Your task to perform on an android device: open app "Microsoft Outlook" (install if not already installed) Image 0: 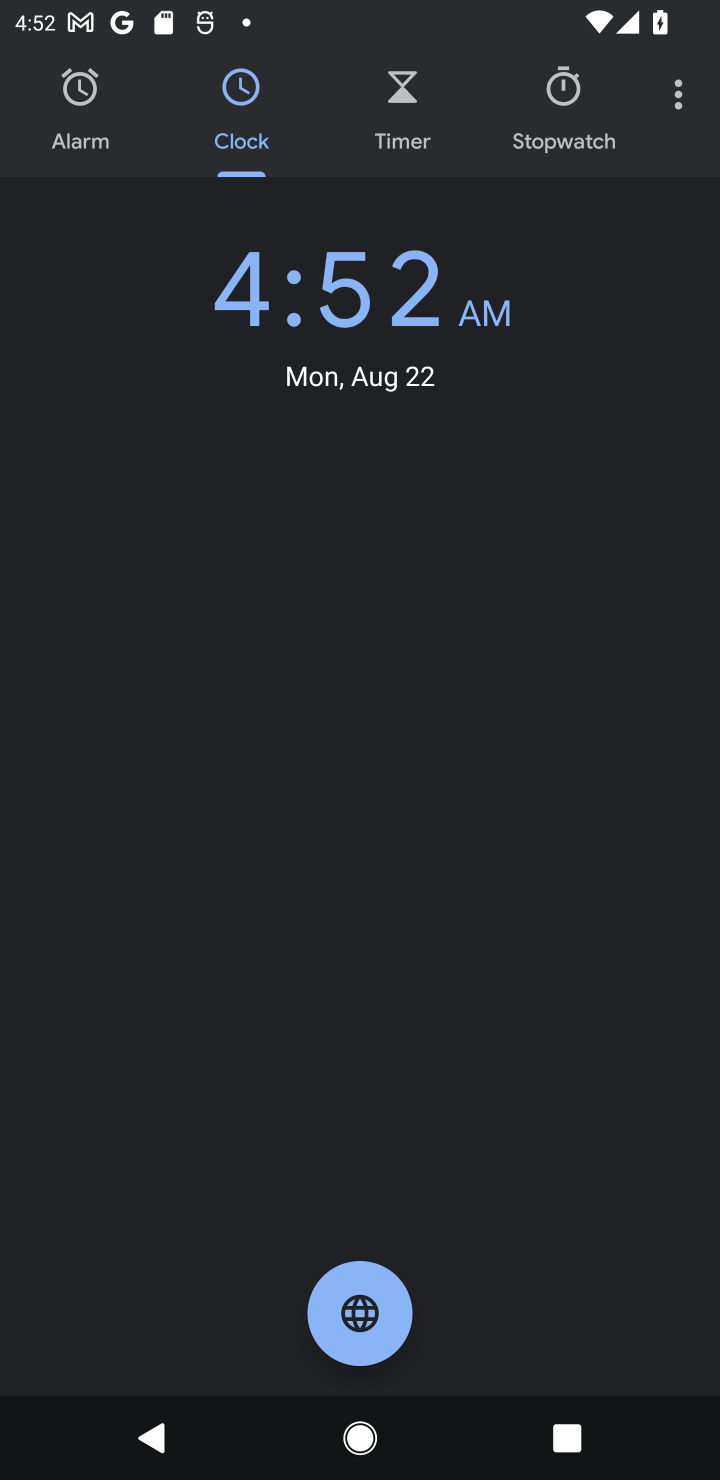
Step 0: press home button
Your task to perform on an android device: open app "Microsoft Outlook" (install if not already installed) Image 1: 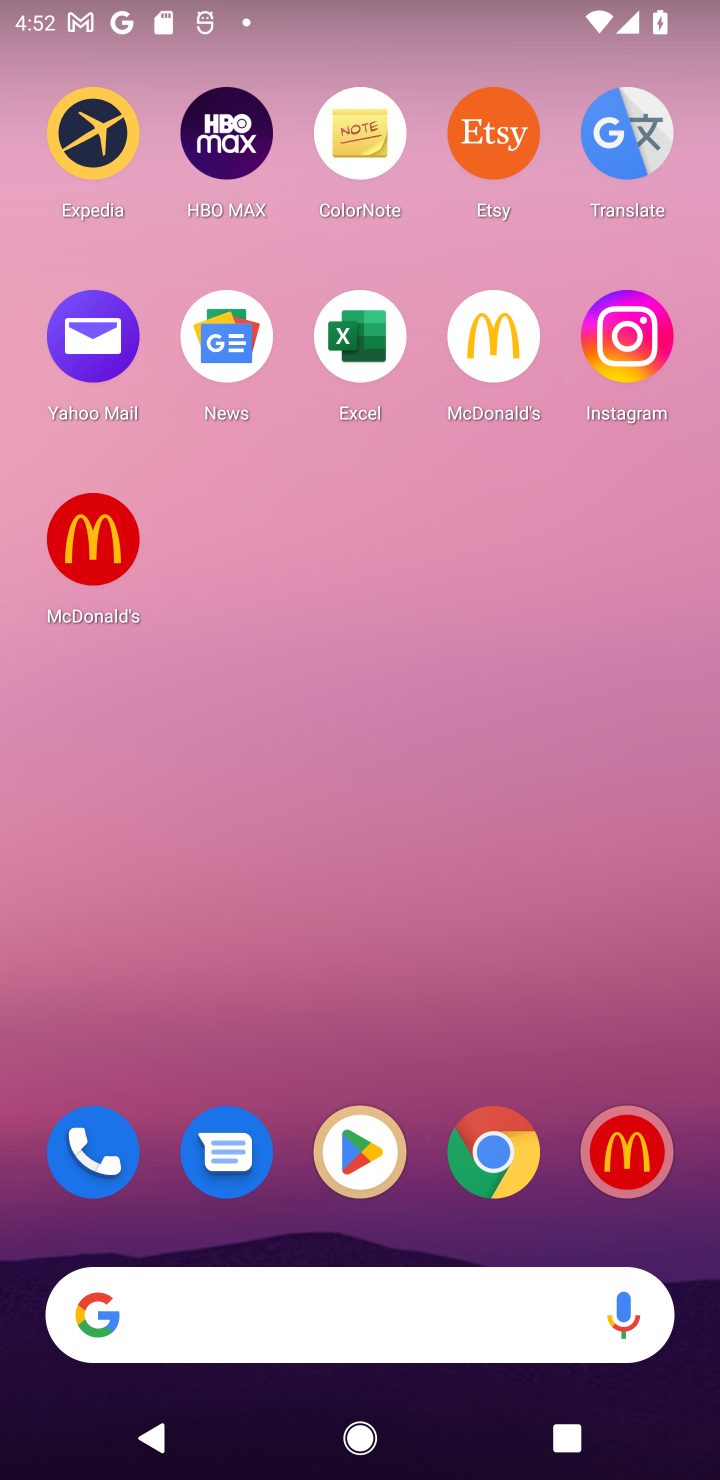
Step 1: click (327, 1147)
Your task to perform on an android device: open app "Microsoft Outlook" (install if not already installed) Image 2: 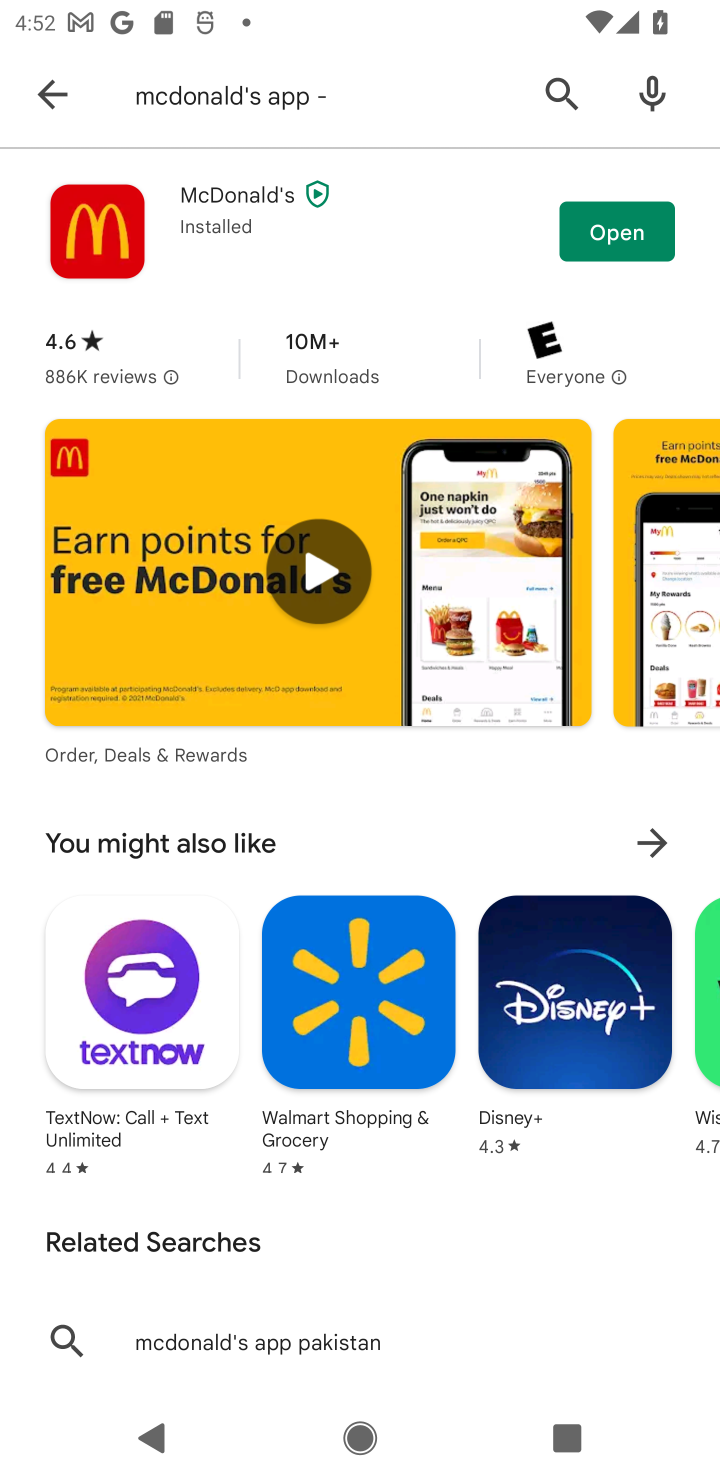
Step 2: click (44, 81)
Your task to perform on an android device: open app "Microsoft Outlook" (install if not already installed) Image 3: 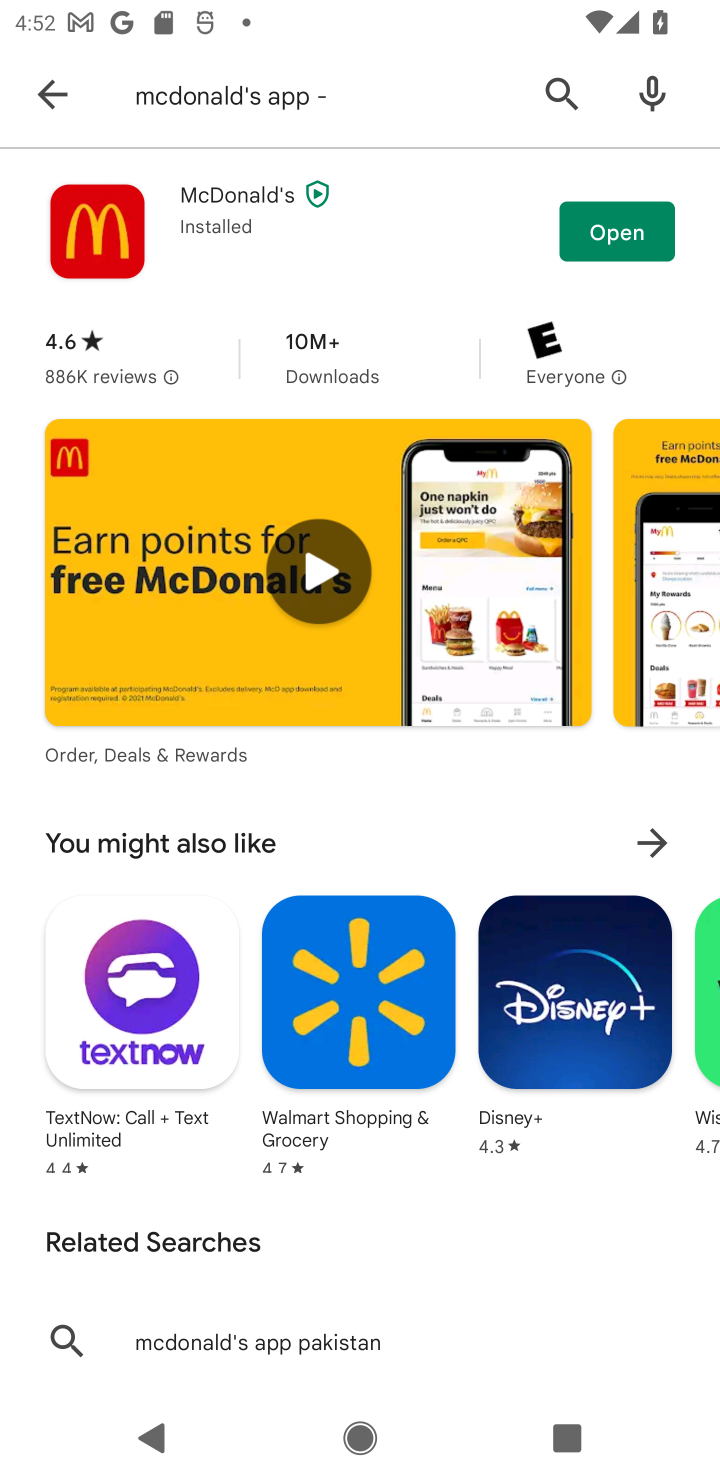
Step 3: click (43, 82)
Your task to perform on an android device: open app "Microsoft Outlook" (install if not already installed) Image 4: 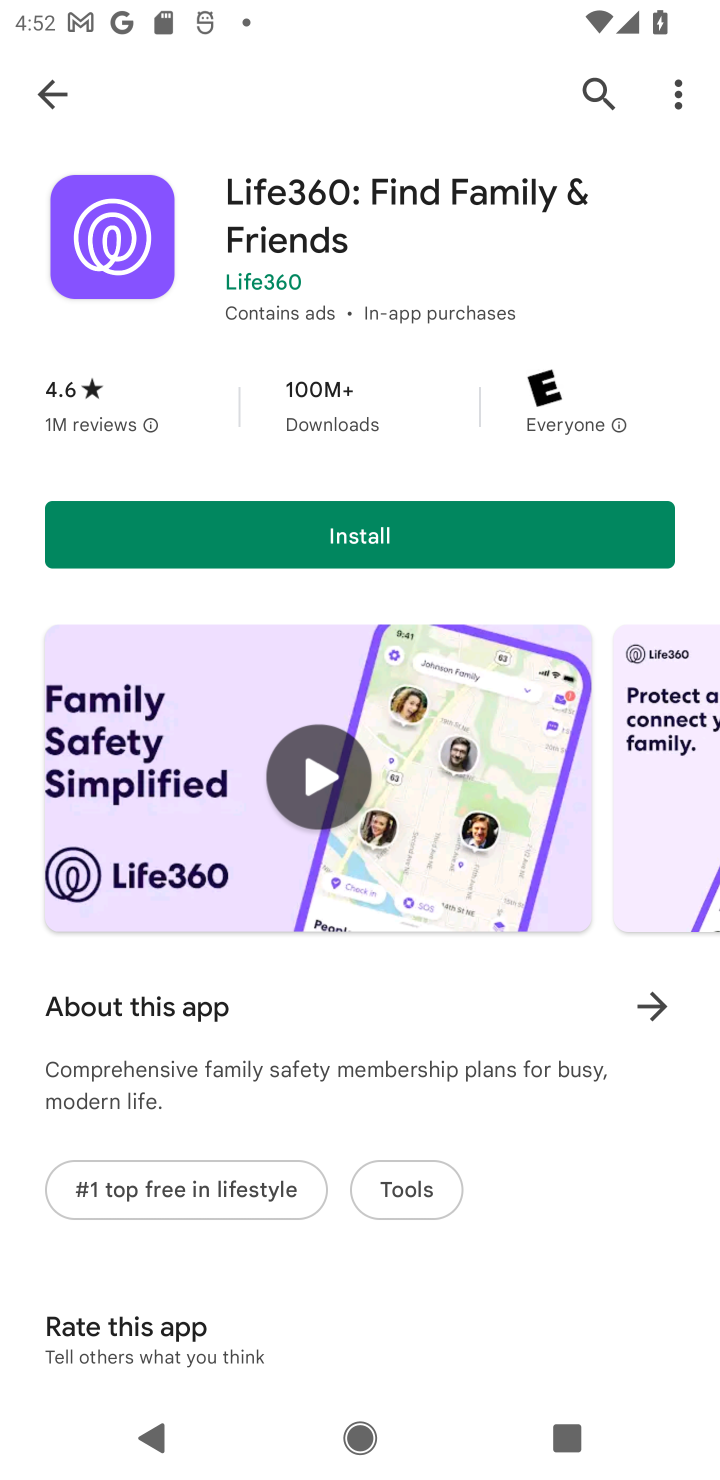
Step 4: click (583, 98)
Your task to perform on an android device: open app "Microsoft Outlook" (install if not already installed) Image 5: 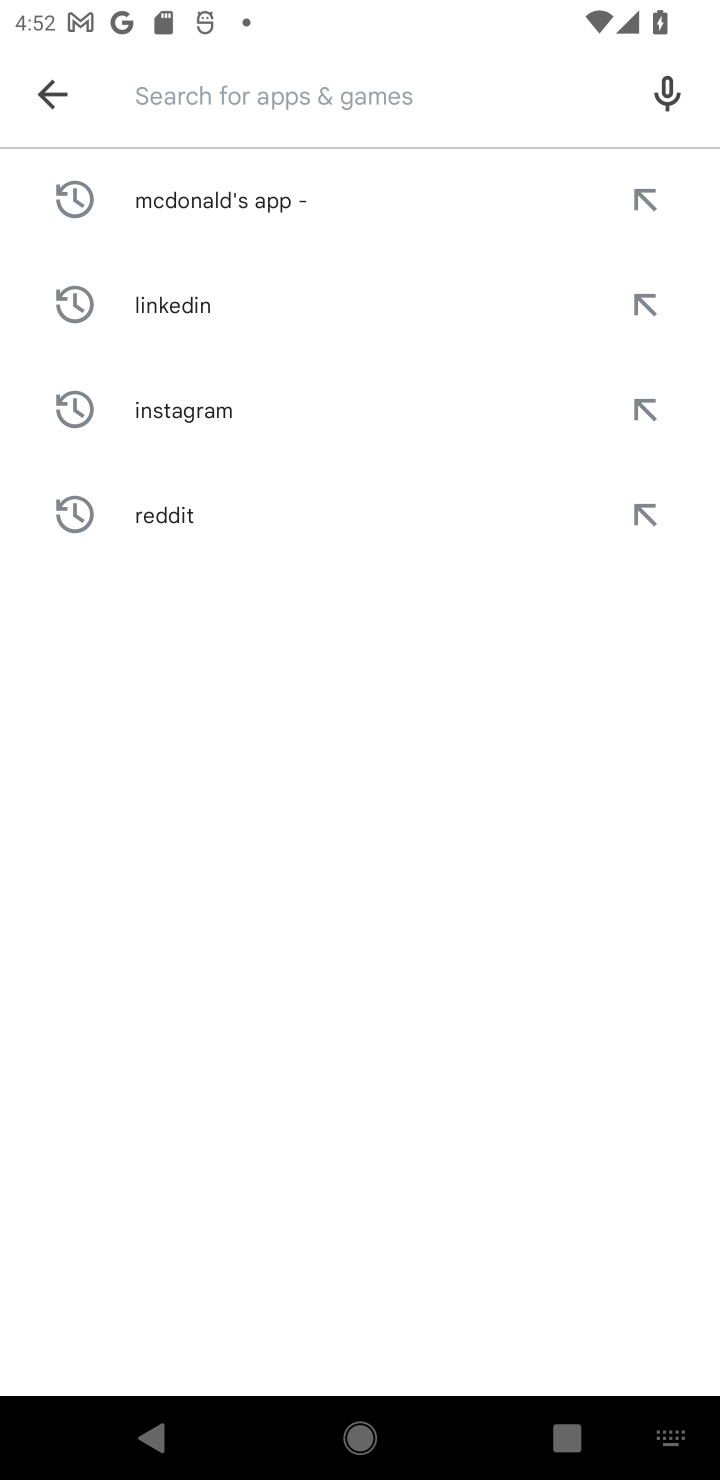
Step 5: type "Microsoft Outlook"
Your task to perform on an android device: open app "Microsoft Outlook" (install if not already installed) Image 6: 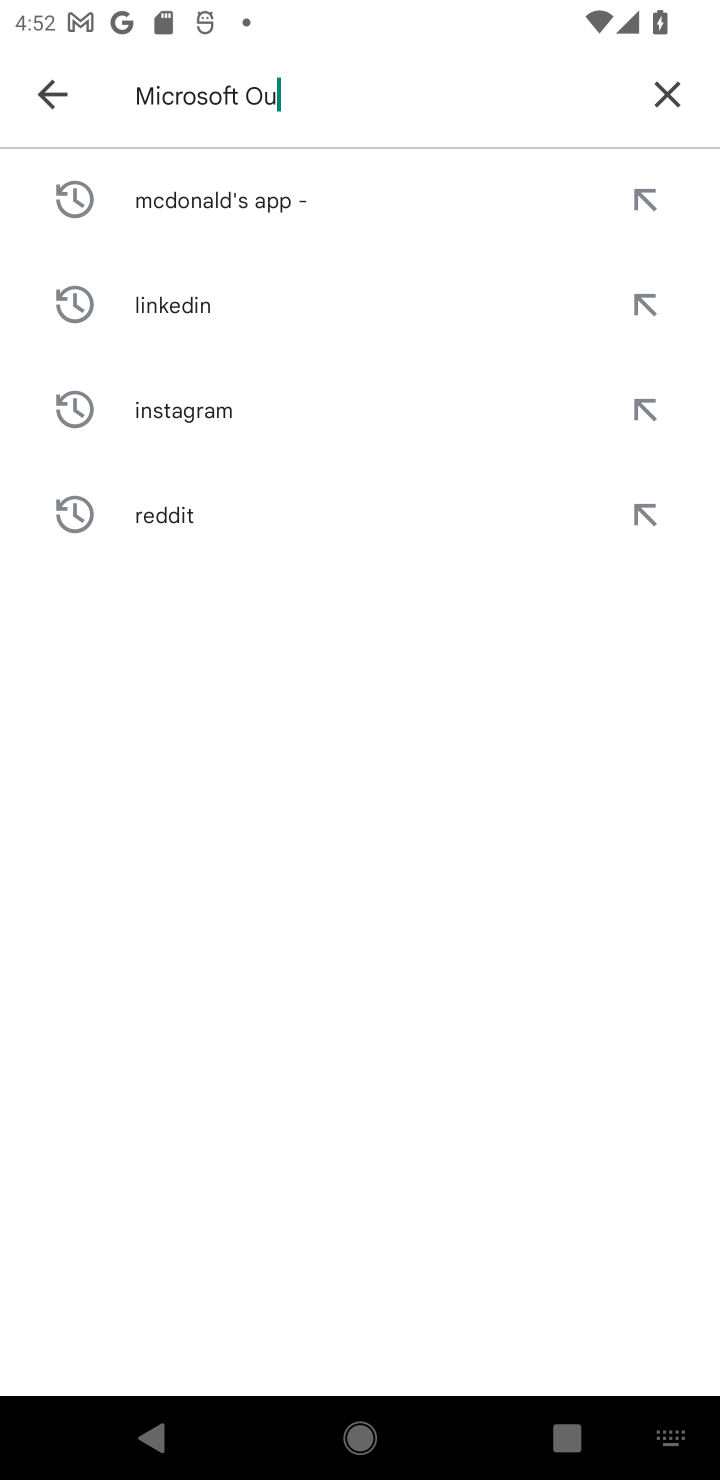
Step 6: type ""
Your task to perform on an android device: open app "Microsoft Outlook" (install if not already installed) Image 7: 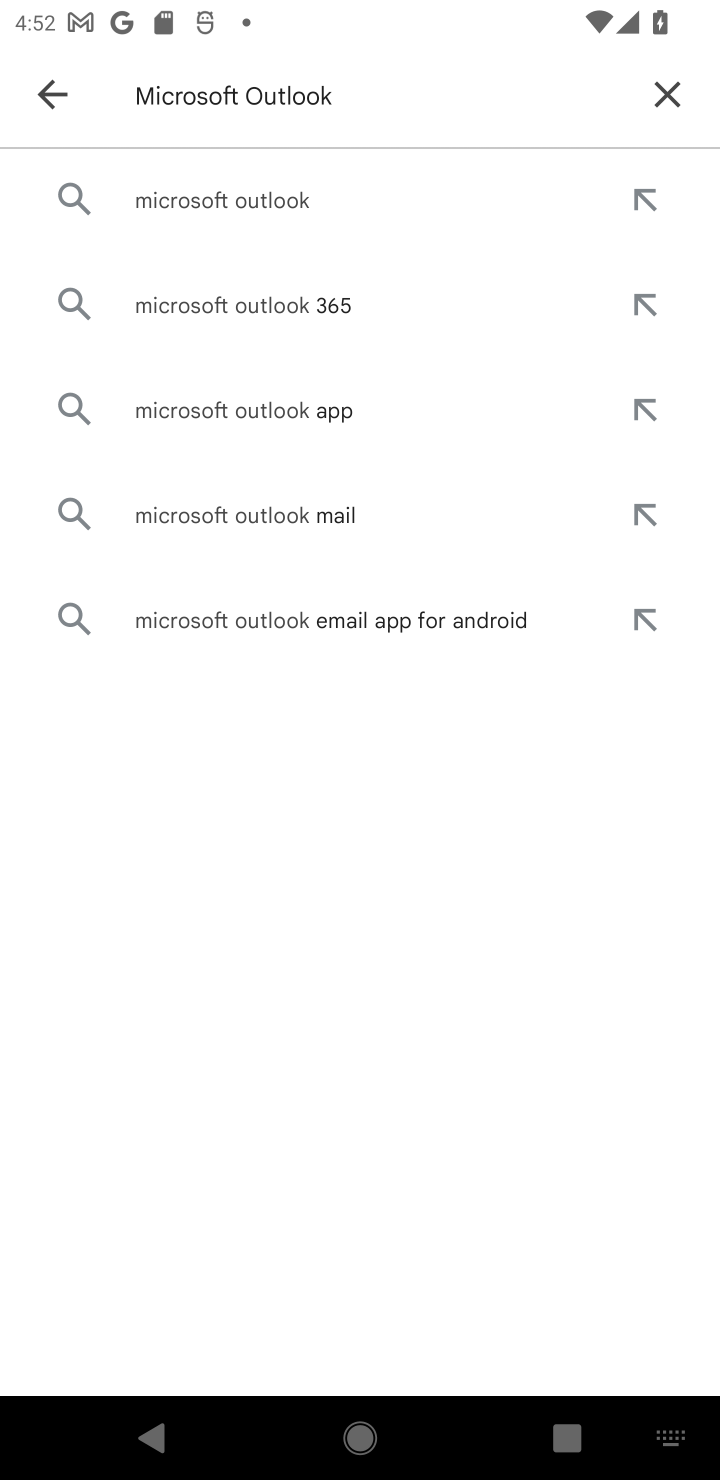
Step 7: click (195, 202)
Your task to perform on an android device: open app "Microsoft Outlook" (install if not already installed) Image 8: 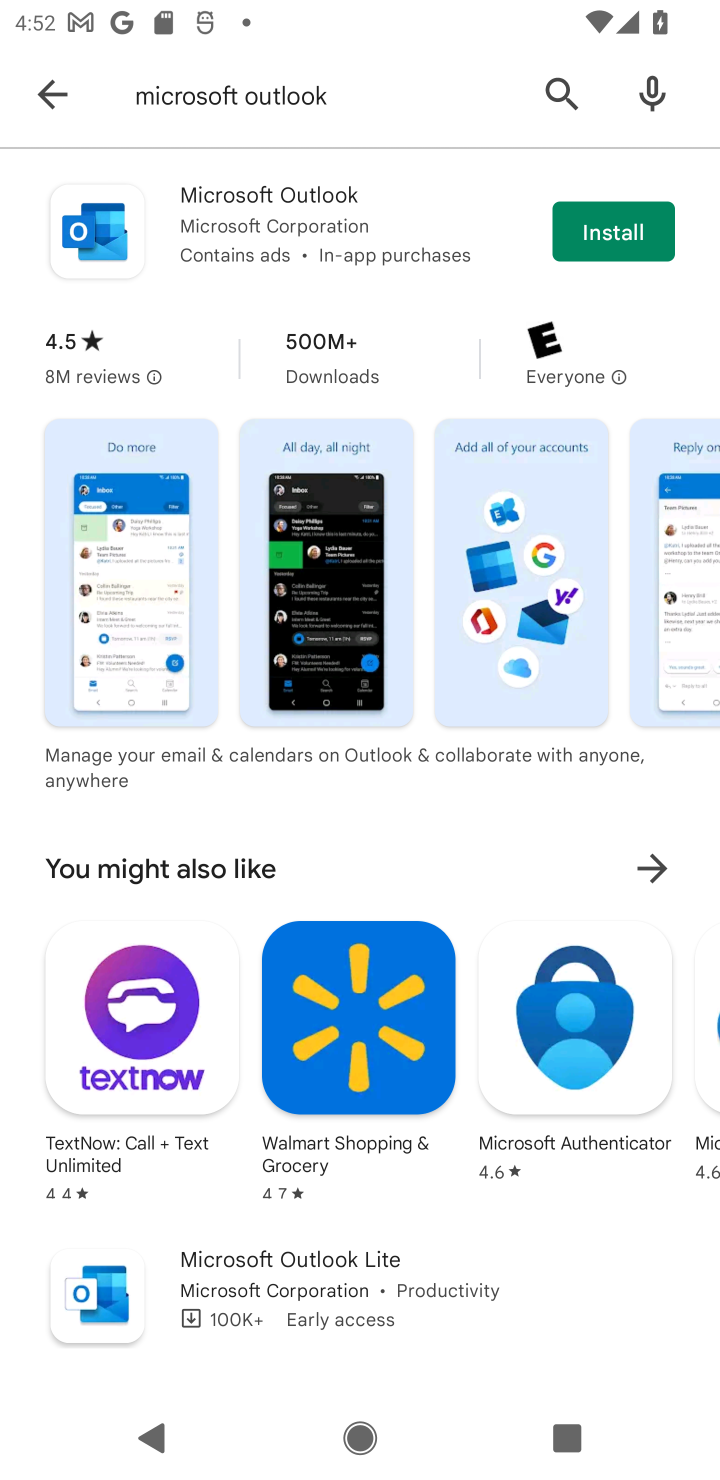
Step 8: click (605, 240)
Your task to perform on an android device: open app "Microsoft Outlook" (install if not already installed) Image 9: 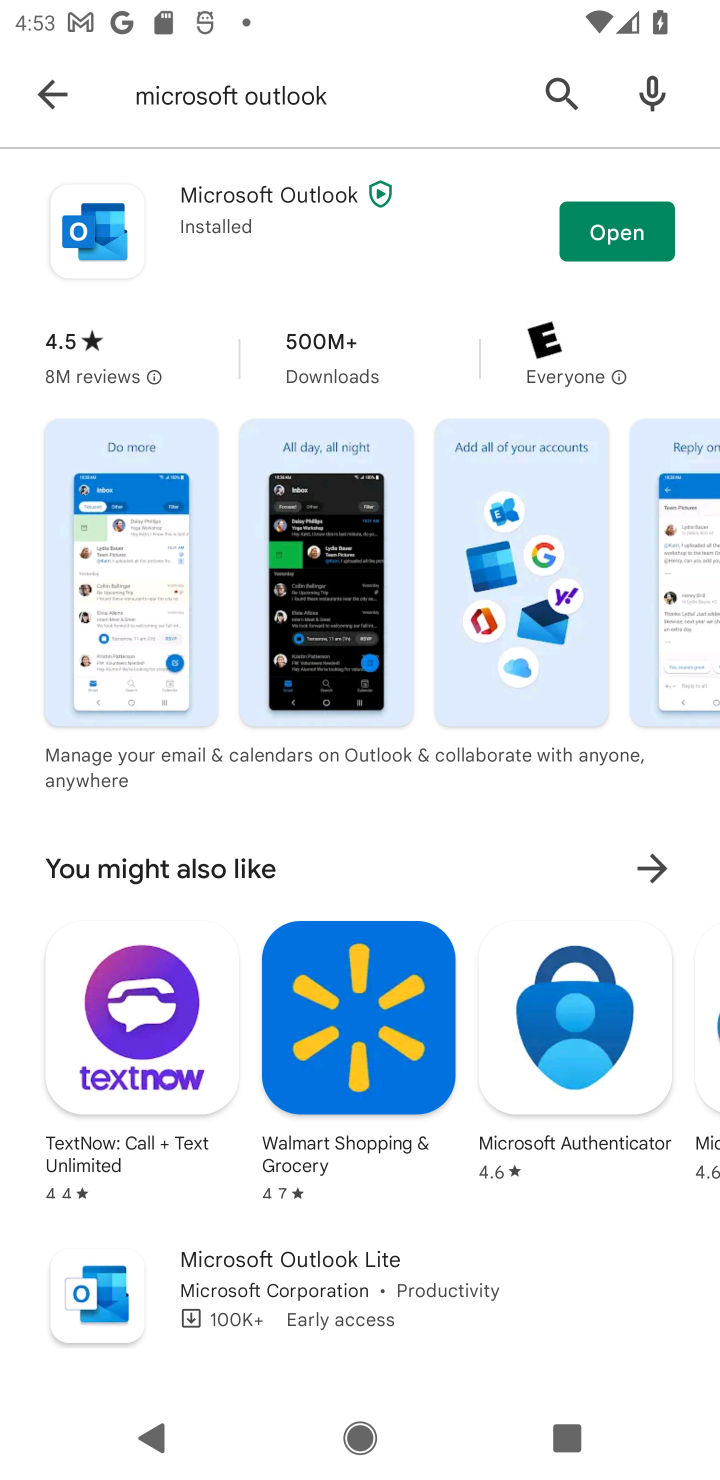
Step 9: click (609, 204)
Your task to perform on an android device: open app "Microsoft Outlook" (install if not already installed) Image 10: 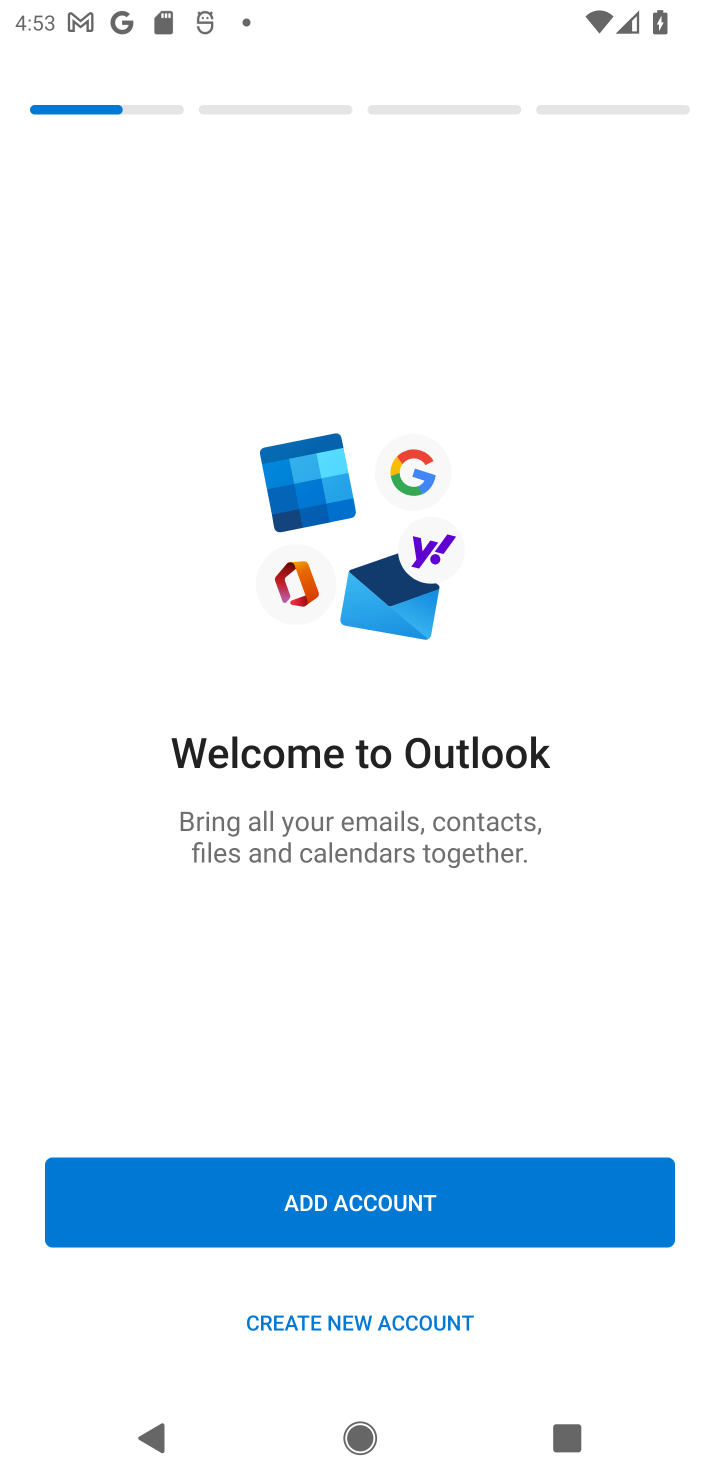
Step 10: task complete